Your task to perform on an android device: open wifi settings Image 0: 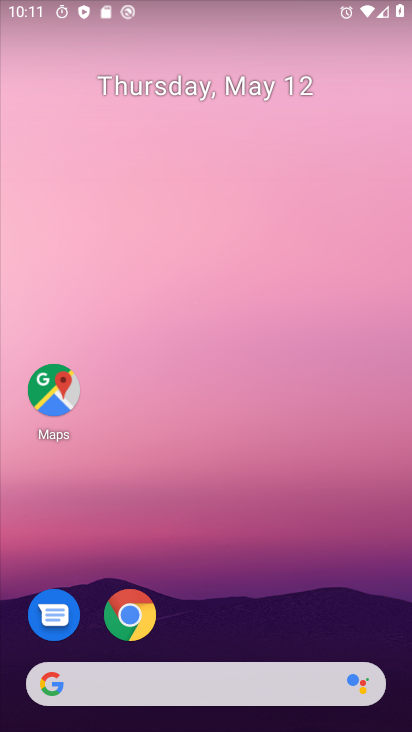
Step 0: drag from (240, 617) to (208, 68)
Your task to perform on an android device: open wifi settings Image 1: 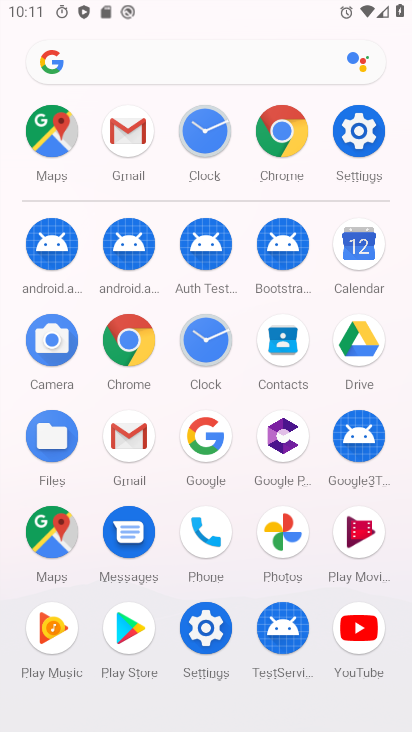
Step 1: click (358, 120)
Your task to perform on an android device: open wifi settings Image 2: 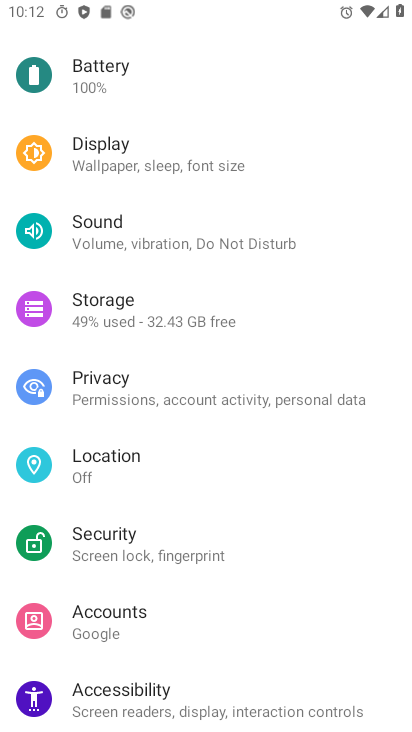
Step 2: drag from (182, 104) to (183, 651)
Your task to perform on an android device: open wifi settings Image 3: 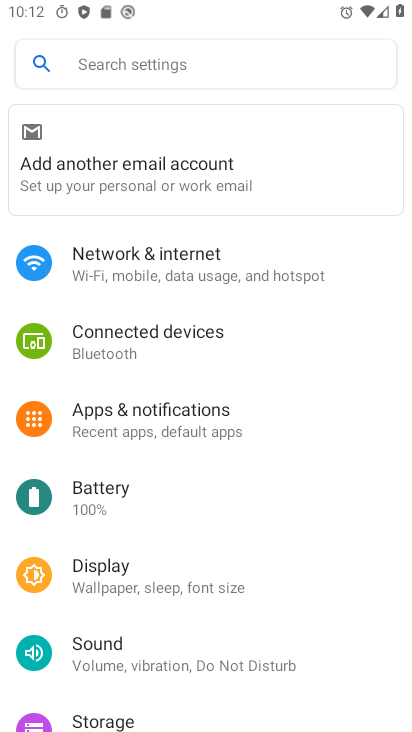
Step 3: click (164, 265)
Your task to perform on an android device: open wifi settings Image 4: 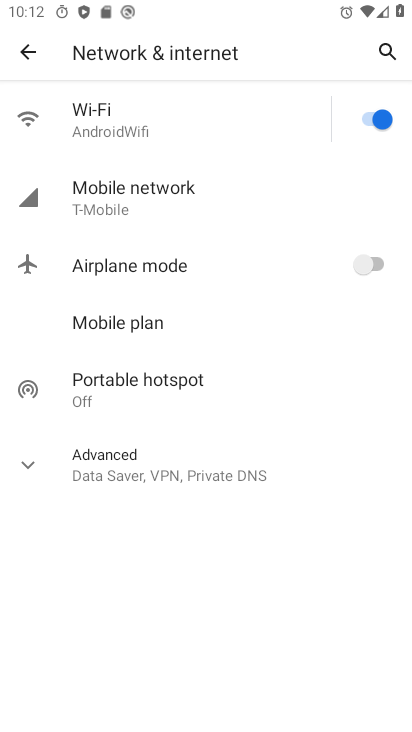
Step 4: click (89, 126)
Your task to perform on an android device: open wifi settings Image 5: 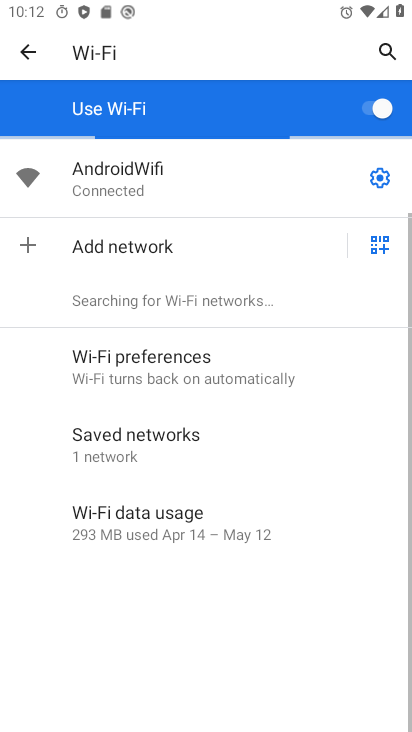
Step 5: click (370, 172)
Your task to perform on an android device: open wifi settings Image 6: 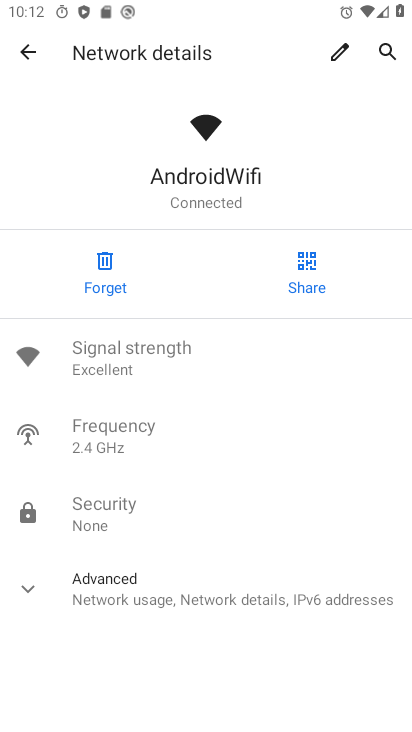
Step 6: task complete